Your task to perform on an android device: What's the weather? Image 0: 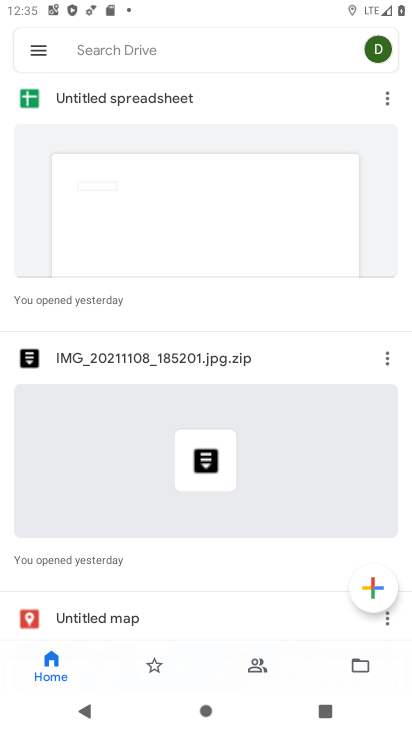
Step 0: press home button
Your task to perform on an android device: What's the weather? Image 1: 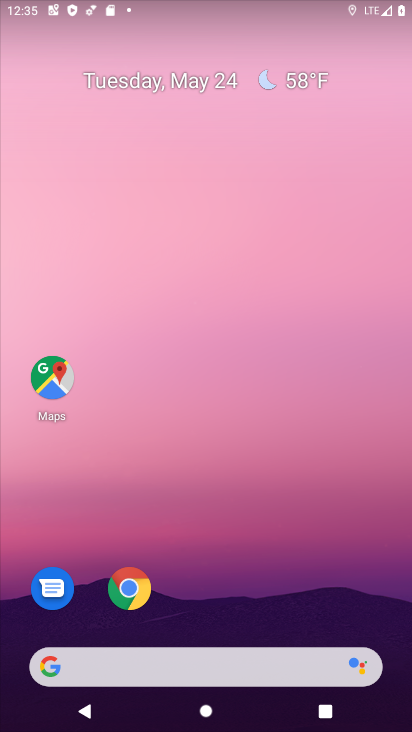
Step 1: click (175, 661)
Your task to perform on an android device: What's the weather? Image 2: 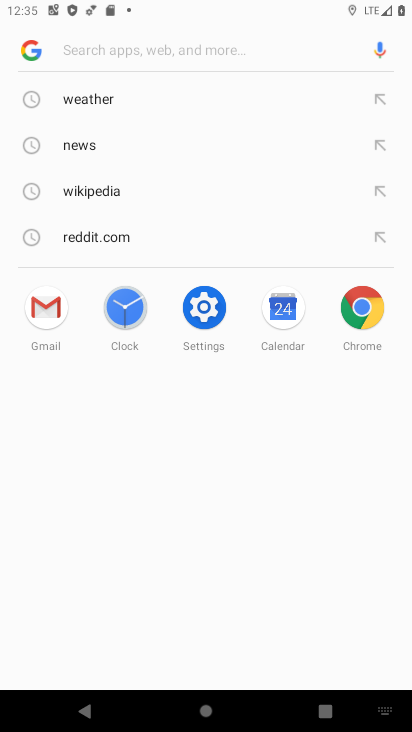
Step 2: click (96, 102)
Your task to perform on an android device: What's the weather? Image 3: 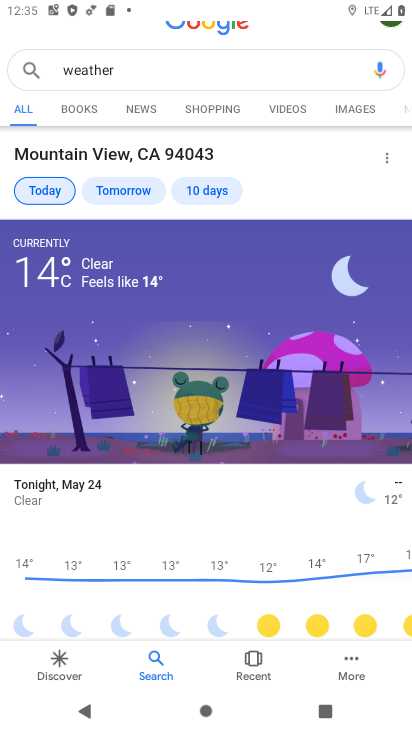
Step 3: task complete